Your task to perform on an android device: turn off location Image 0: 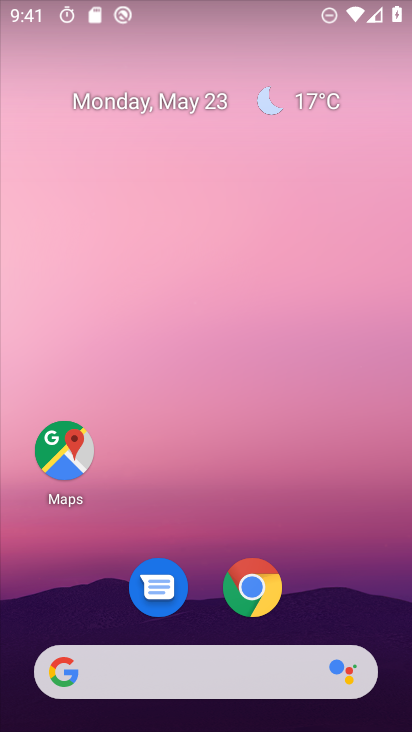
Step 0: drag from (213, 569) to (274, 80)
Your task to perform on an android device: turn off location Image 1: 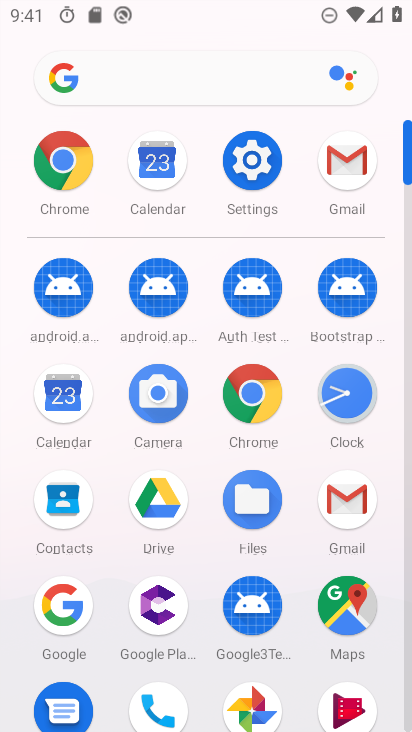
Step 1: click (268, 175)
Your task to perform on an android device: turn off location Image 2: 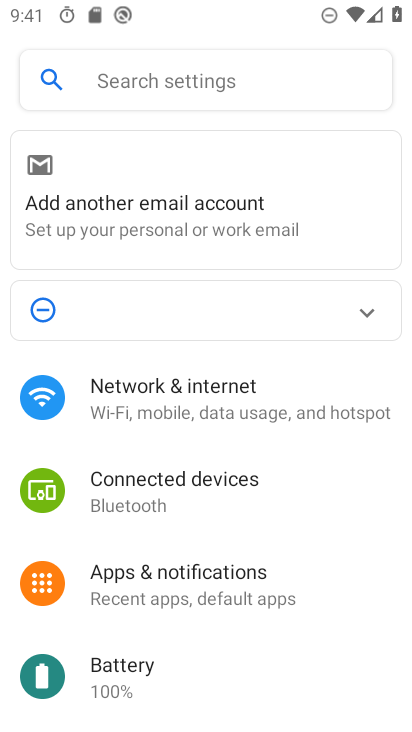
Step 2: drag from (166, 651) to (310, 98)
Your task to perform on an android device: turn off location Image 3: 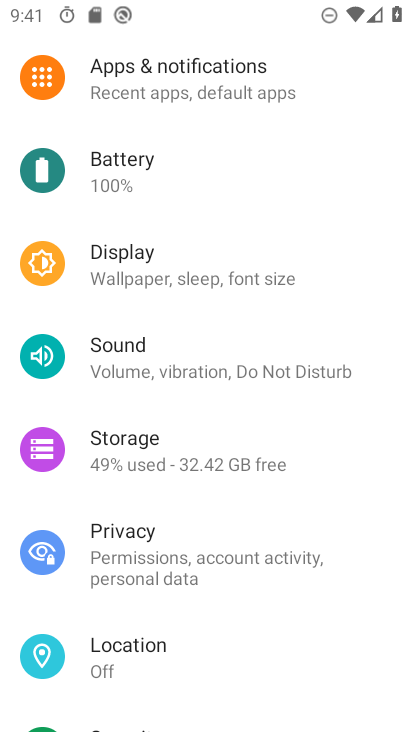
Step 3: click (138, 652)
Your task to perform on an android device: turn off location Image 4: 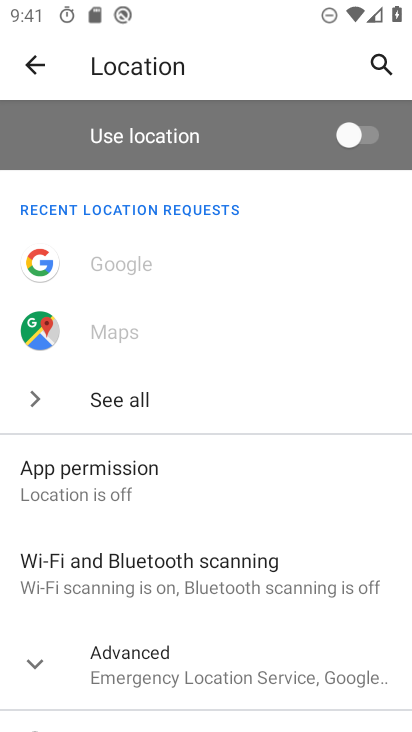
Step 4: task complete